Your task to perform on an android device: What's the weather today? Image 0: 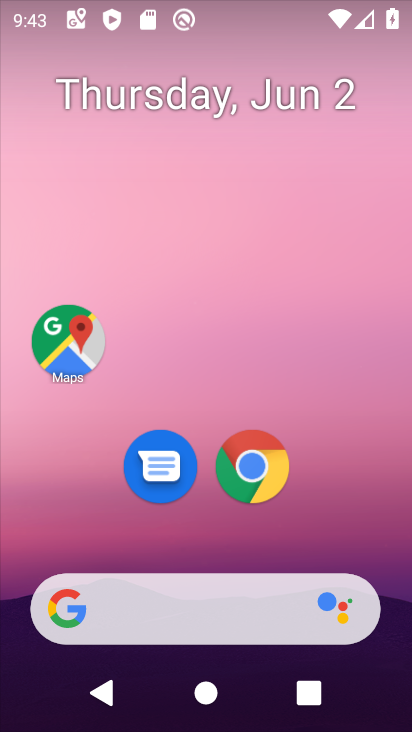
Step 0: click (177, 608)
Your task to perform on an android device: What's the weather today? Image 1: 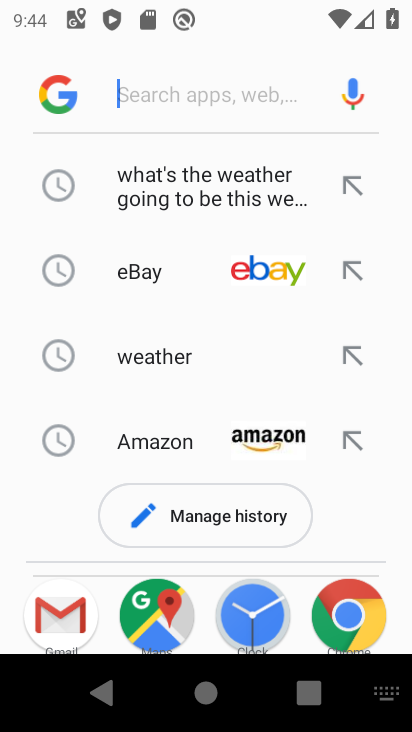
Step 1: type "what's the weather today"
Your task to perform on an android device: What's the weather today? Image 2: 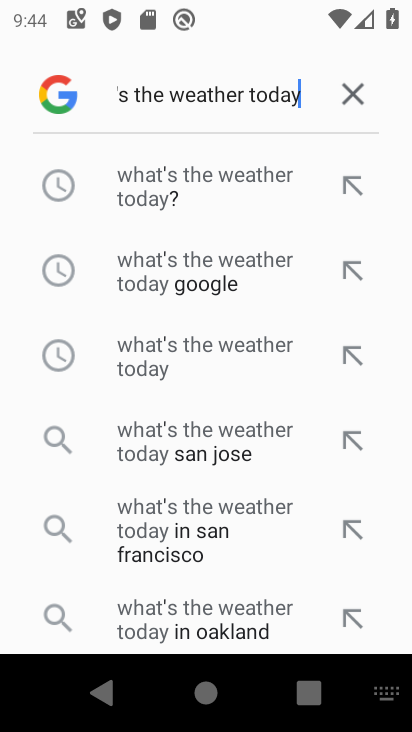
Step 2: click (195, 193)
Your task to perform on an android device: What's the weather today? Image 3: 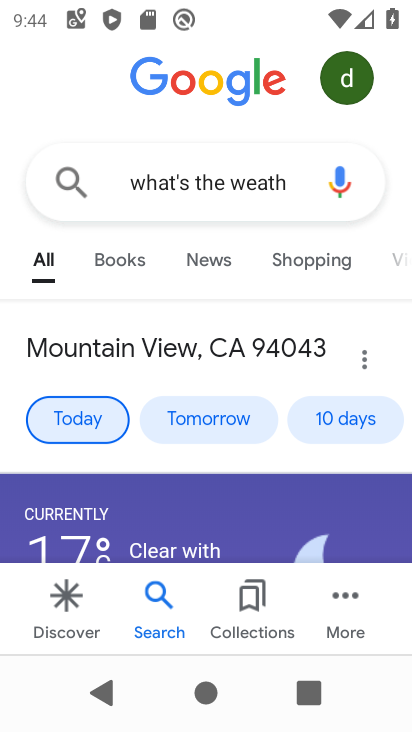
Step 3: task complete